Your task to perform on an android device: When is my next appointment? Image 0: 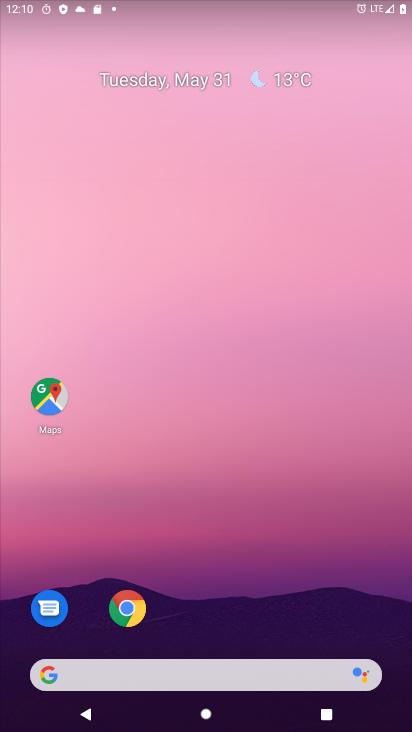
Step 0: drag from (262, 634) to (268, 17)
Your task to perform on an android device: When is my next appointment? Image 1: 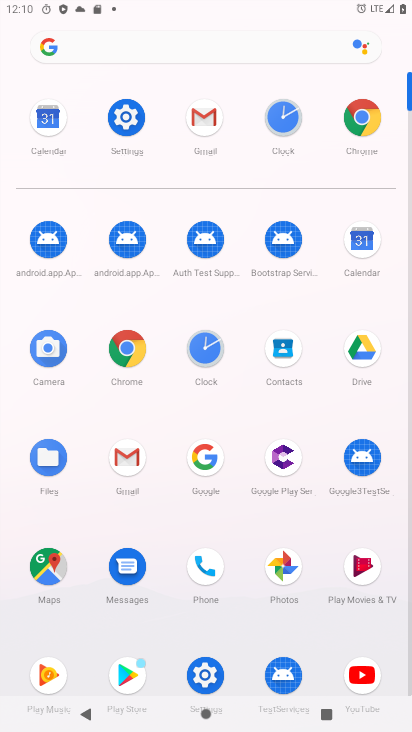
Step 1: click (50, 122)
Your task to perform on an android device: When is my next appointment? Image 2: 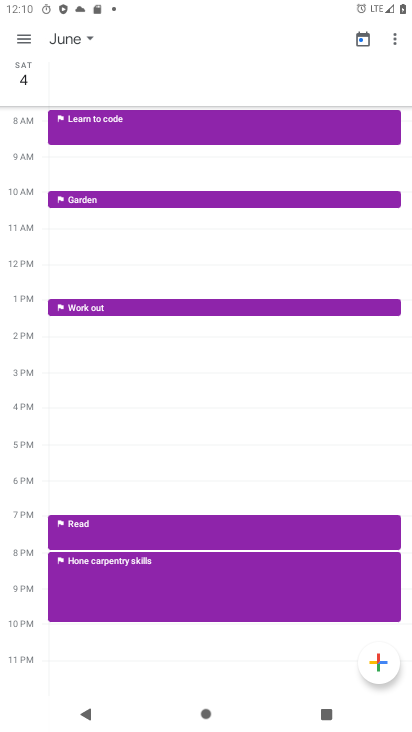
Step 2: click (360, 40)
Your task to perform on an android device: When is my next appointment? Image 3: 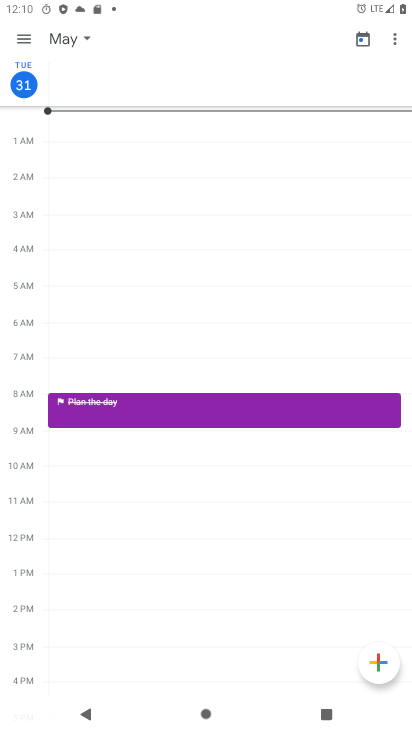
Step 3: click (29, 37)
Your task to perform on an android device: When is my next appointment? Image 4: 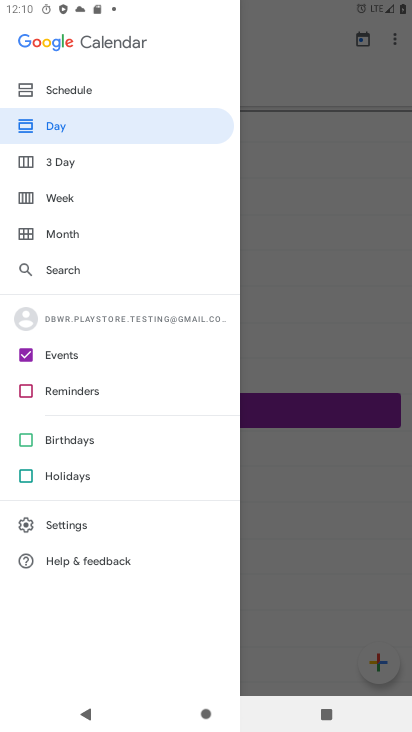
Step 4: click (37, 91)
Your task to perform on an android device: When is my next appointment? Image 5: 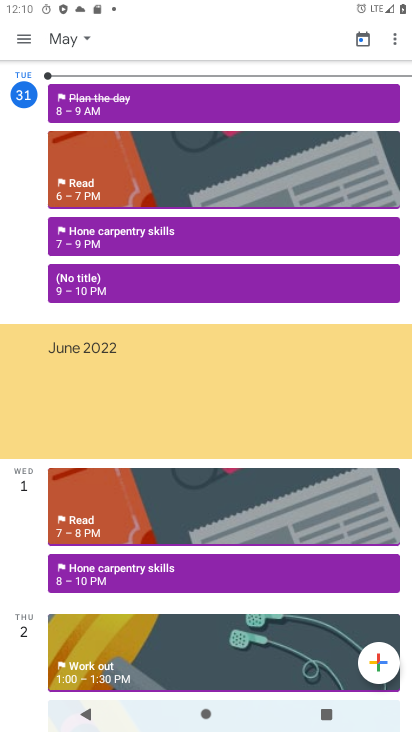
Step 5: drag from (183, 386) to (173, 140)
Your task to perform on an android device: When is my next appointment? Image 6: 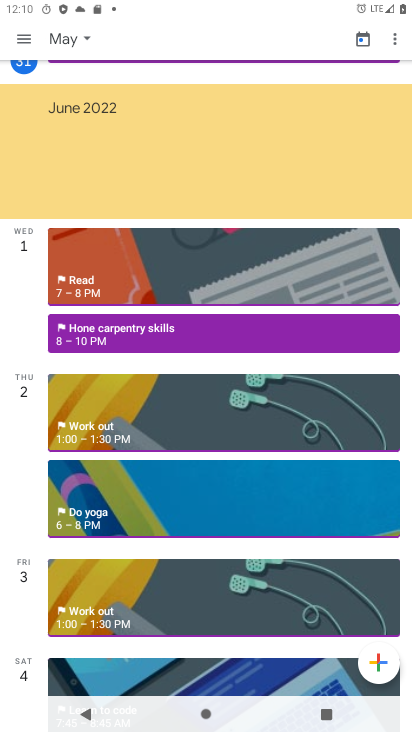
Step 6: drag from (151, 382) to (151, 139)
Your task to perform on an android device: When is my next appointment? Image 7: 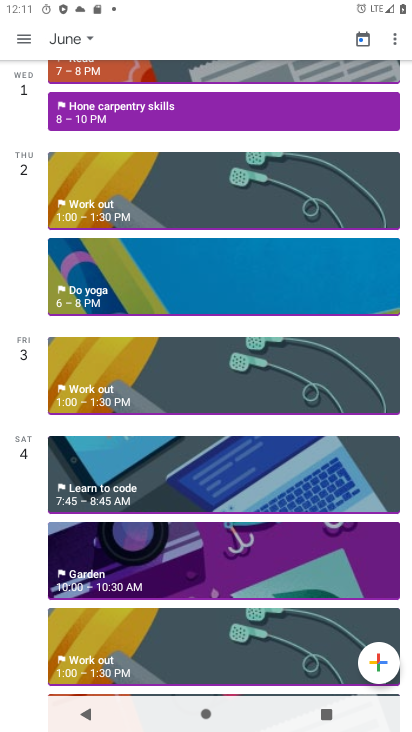
Step 7: drag from (147, 509) to (156, 153)
Your task to perform on an android device: When is my next appointment? Image 8: 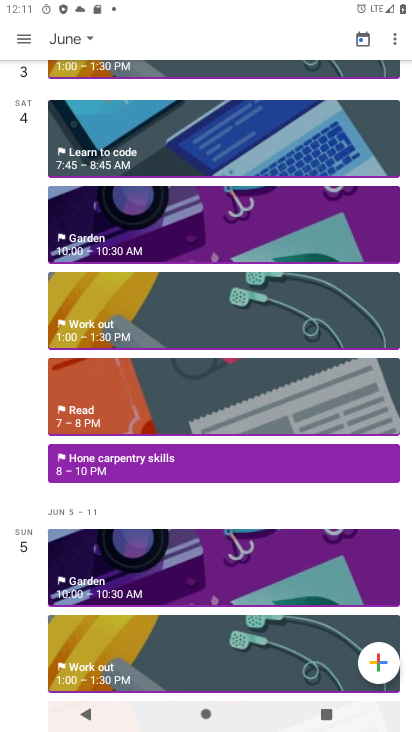
Step 8: drag from (146, 477) to (151, 156)
Your task to perform on an android device: When is my next appointment? Image 9: 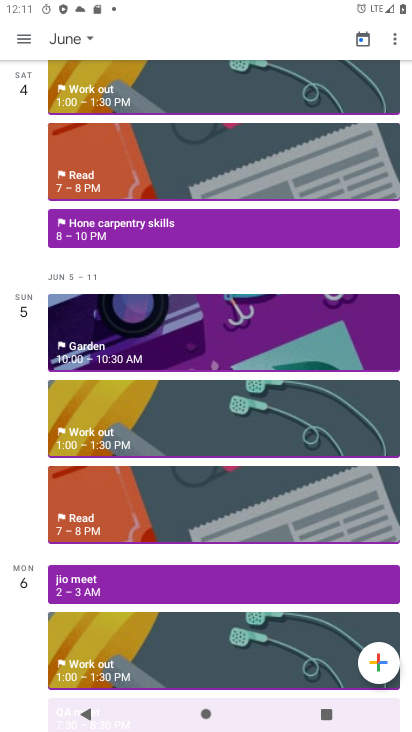
Step 9: click (133, 586)
Your task to perform on an android device: When is my next appointment? Image 10: 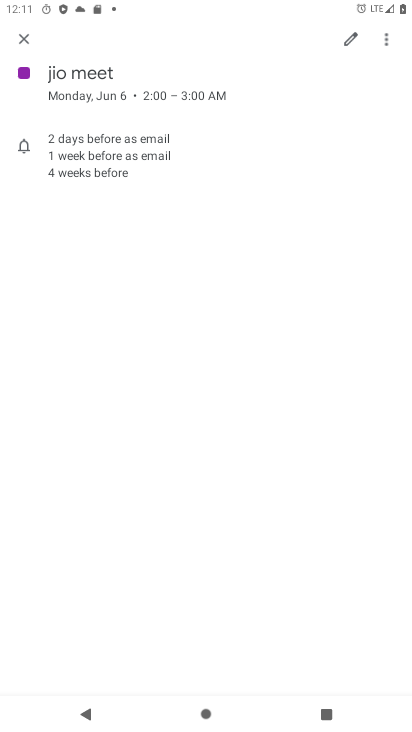
Step 10: task complete